Your task to perform on an android device: check google app version Image 0: 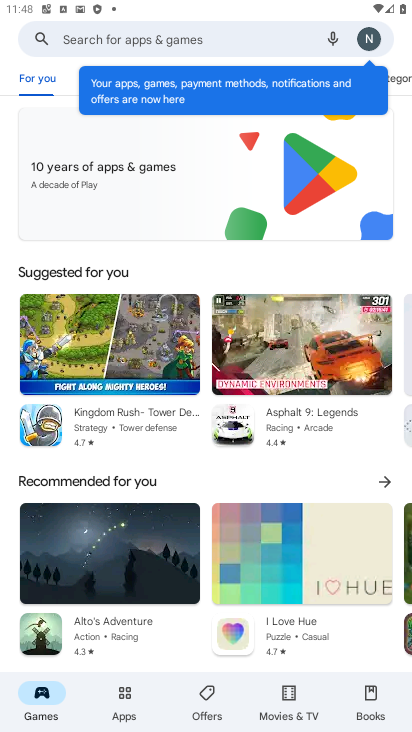
Step 0: task impossible